Your task to perform on an android device: Check the weather Image 0: 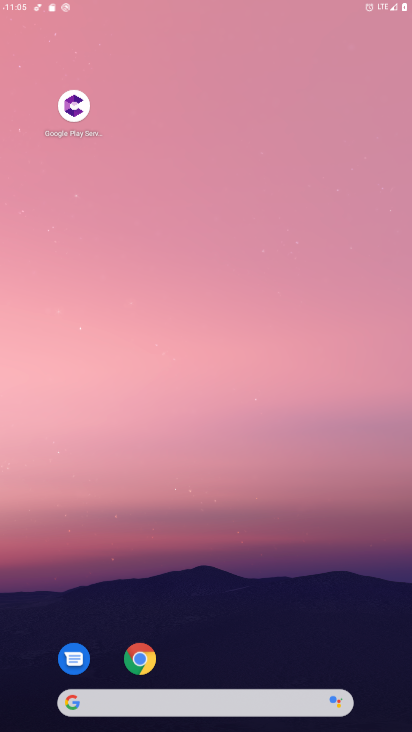
Step 0: press home button
Your task to perform on an android device: Check the weather Image 1: 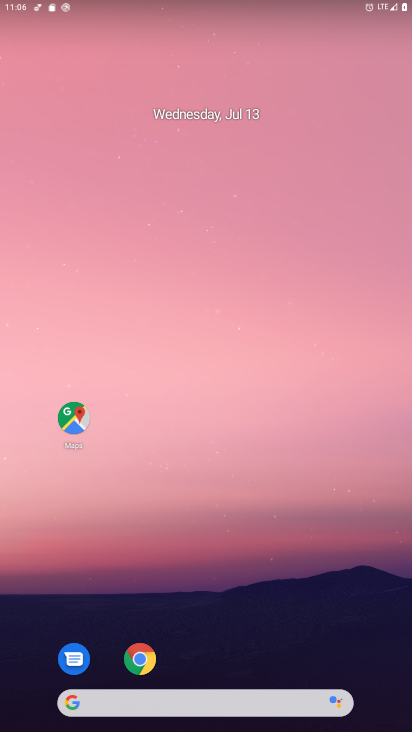
Step 1: drag from (211, 648) to (192, 128)
Your task to perform on an android device: Check the weather Image 2: 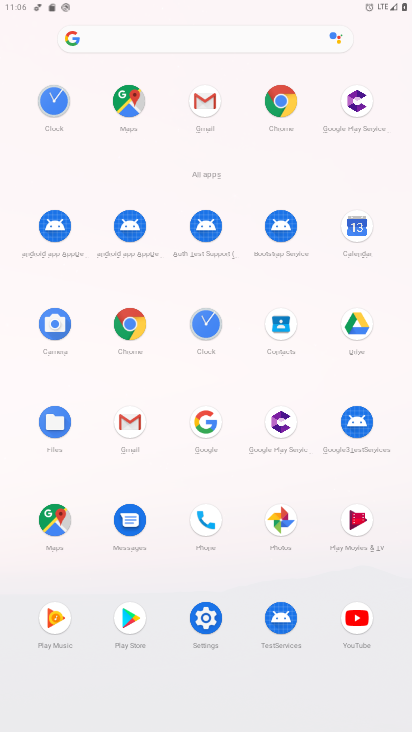
Step 2: press home button
Your task to perform on an android device: Check the weather Image 3: 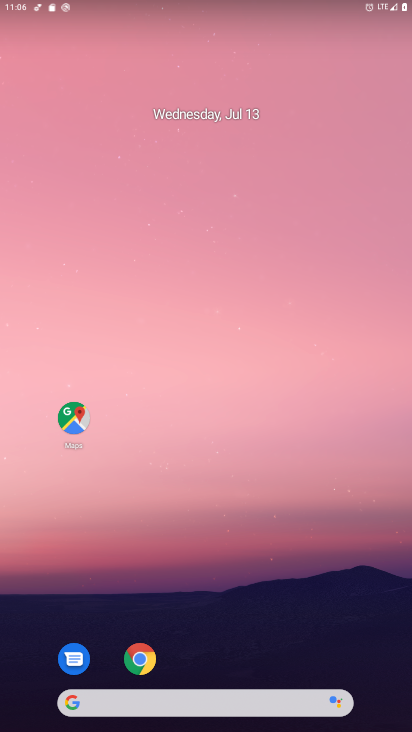
Step 3: click (170, 693)
Your task to perform on an android device: Check the weather Image 4: 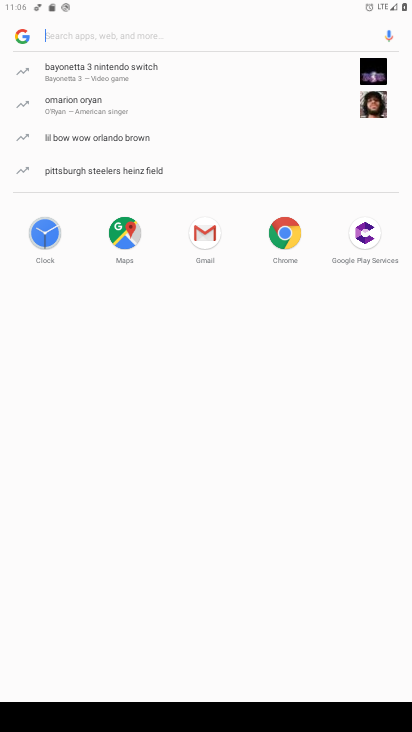
Step 4: type "weather"
Your task to perform on an android device: Check the weather Image 5: 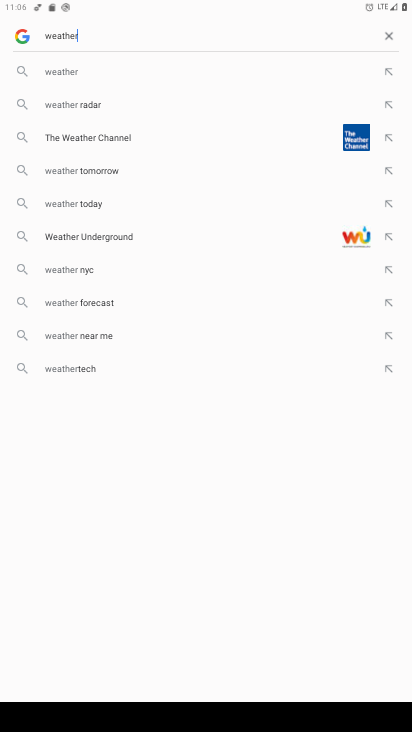
Step 5: click (90, 71)
Your task to perform on an android device: Check the weather Image 6: 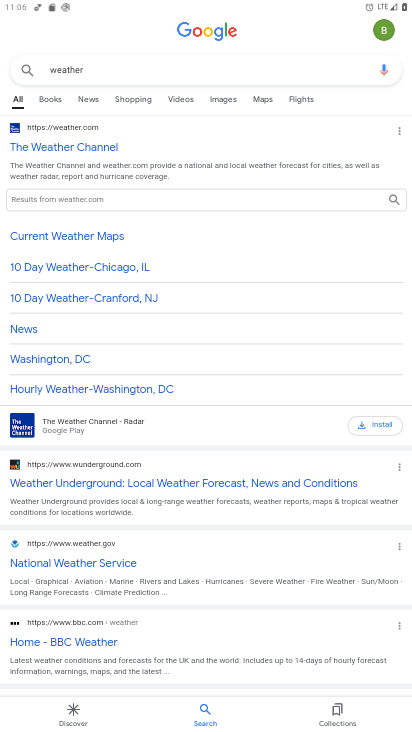
Step 6: drag from (211, 619) to (202, 169)
Your task to perform on an android device: Check the weather Image 7: 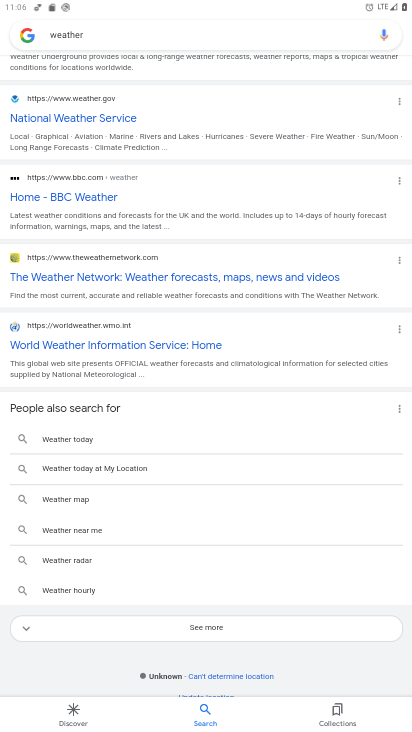
Step 7: click (103, 439)
Your task to perform on an android device: Check the weather Image 8: 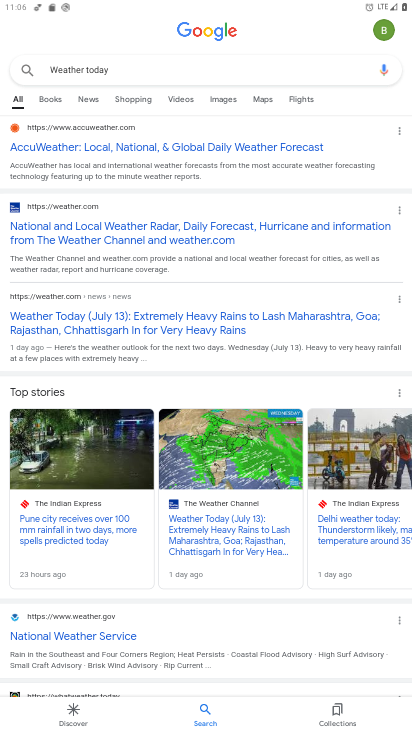
Step 8: click (158, 142)
Your task to perform on an android device: Check the weather Image 9: 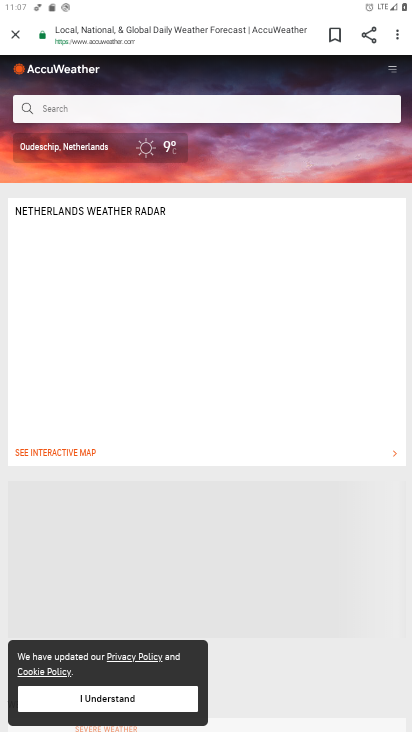
Step 9: task complete